Your task to perform on an android device: Go to Google maps Image 0: 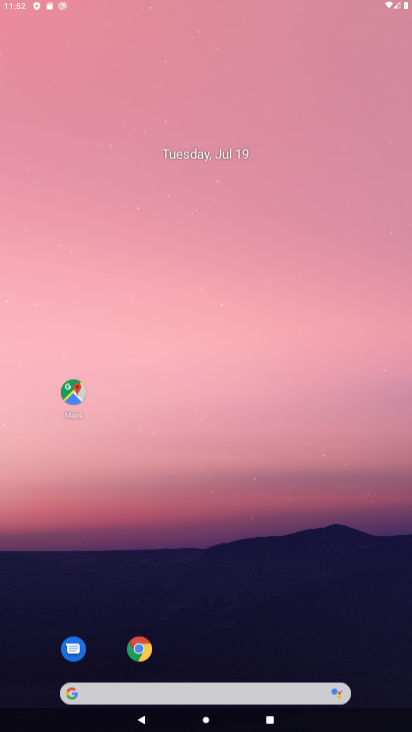
Step 0: click (140, 648)
Your task to perform on an android device: Go to Google maps Image 1: 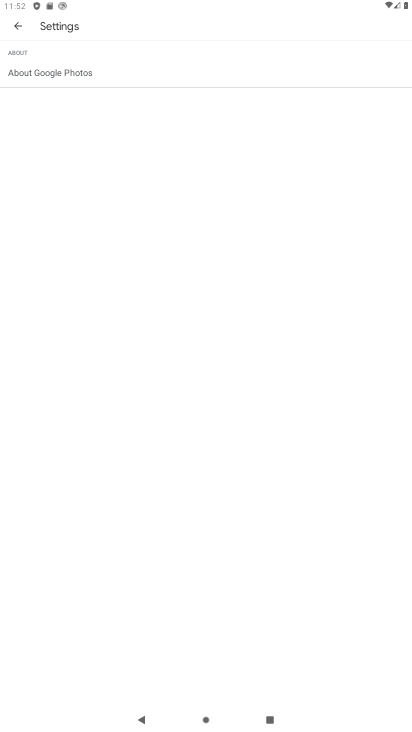
Step 1: click (142, 636)
Your task to perform on an android device: Go to Google maps Image 2: 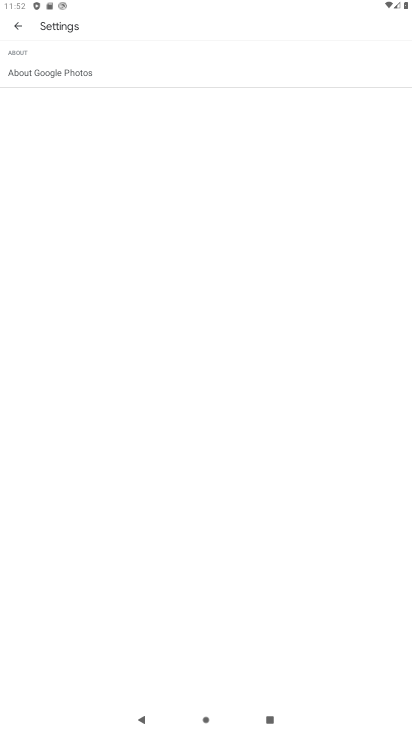
Step 2: click (21, 26)
Your task to perform on an android device: Go to Google maps Image 3: 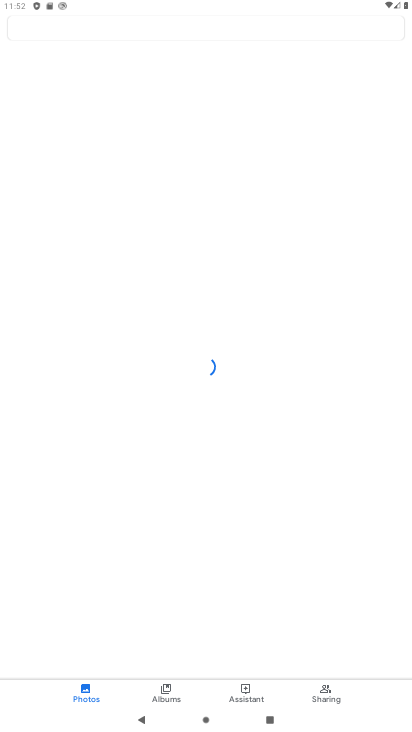
Step 3: press home button
Your task to perform on an android device: Go to Google maps Image 4: 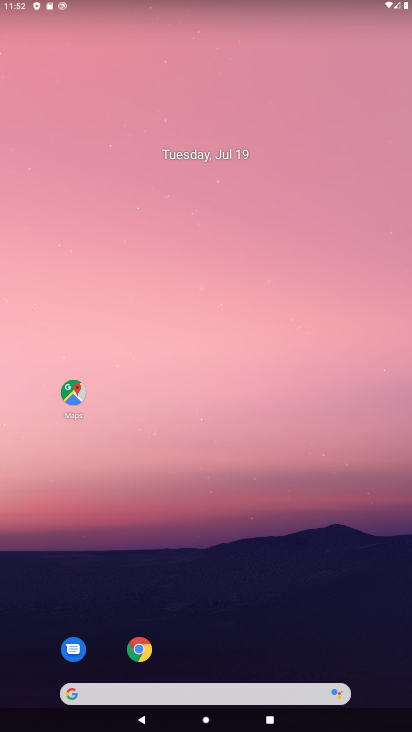
Step 4: click (79, 400)
Your task to perform on an android device: Go to Google maps Image 5: 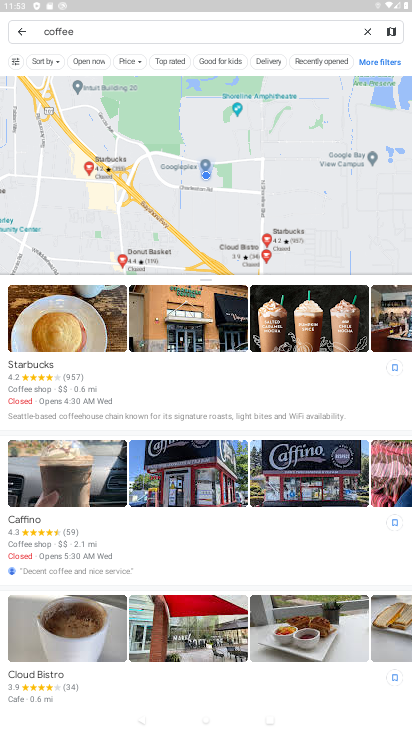
Step 5: task complete